Your task to perform on an android device: Open Yahoo.com Image 0: 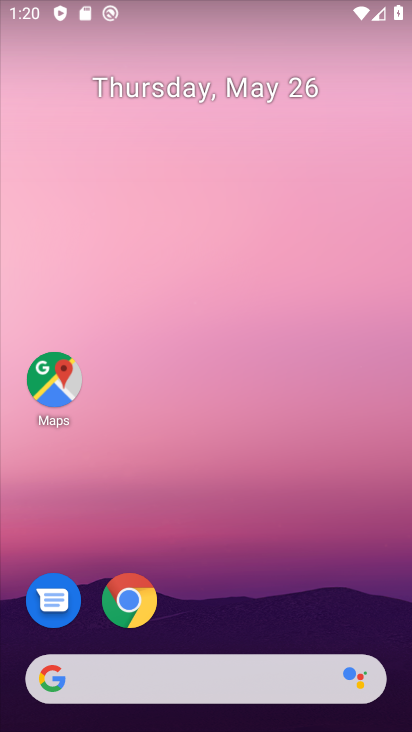
Step 0: click (125, 600)
Your task to perform on an android device: Open Yahoo.com Image 1: 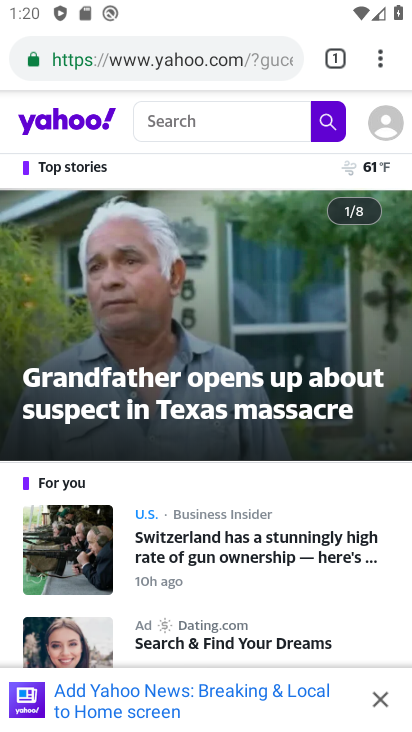
Step 1: task complete